Your task to perform on an android device: Play the last video I watched on Youtube Image 0: 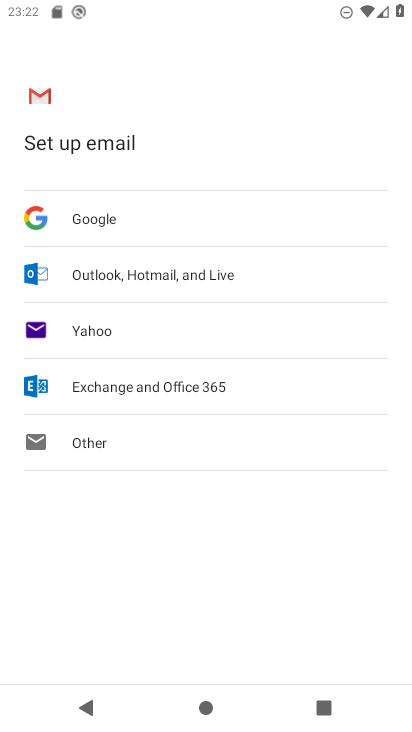
Step 0: press home button
Your task to perform on an android device: Play the last video I watched on Youtube Image 1: 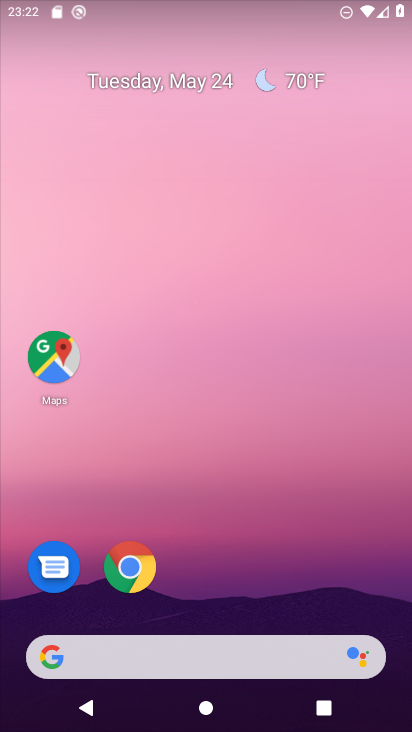
Step 1: drag from (318, 595) to (260, 27)
Your task to perform on an android device: Play the last video I watched on Youtube Image 2: 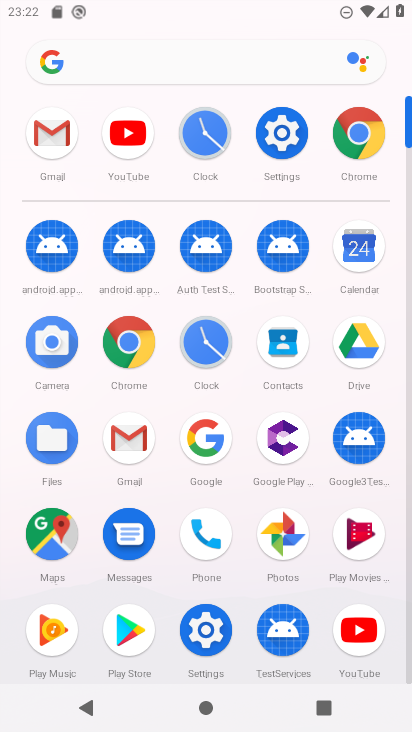
Step 2: click (373, 627)
Your task to perform on an android device: Play the last video I watched on Youtube Image 3: 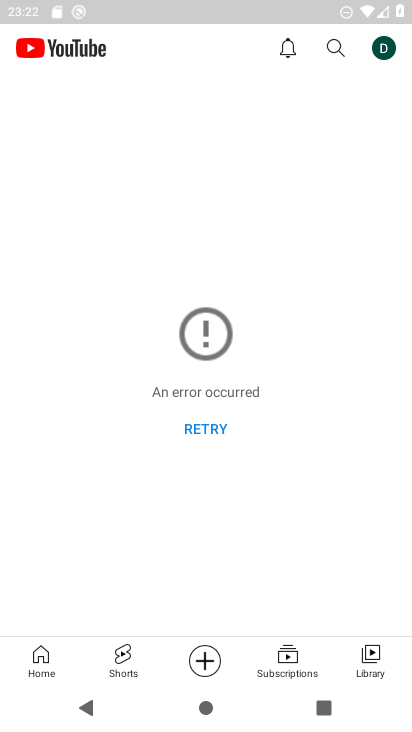
Step 3: click (373, 657)
Your task to perform on an android device: Play the last video I watched on Youtube Image 4: 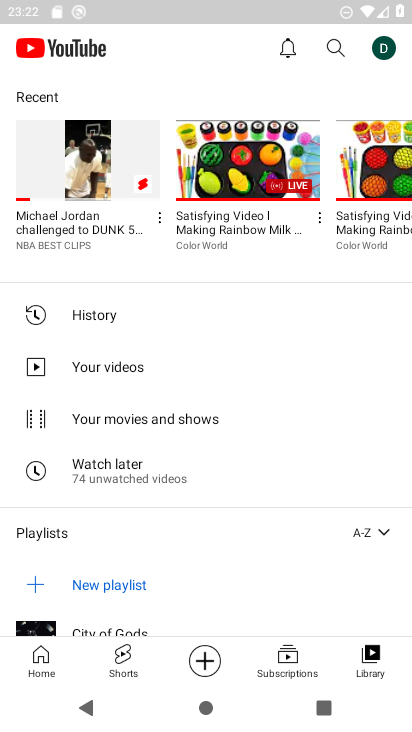
Step 4: click (80, 163)
Your task to perform on an android device: Play the last video I watched on Youtube Image 5: 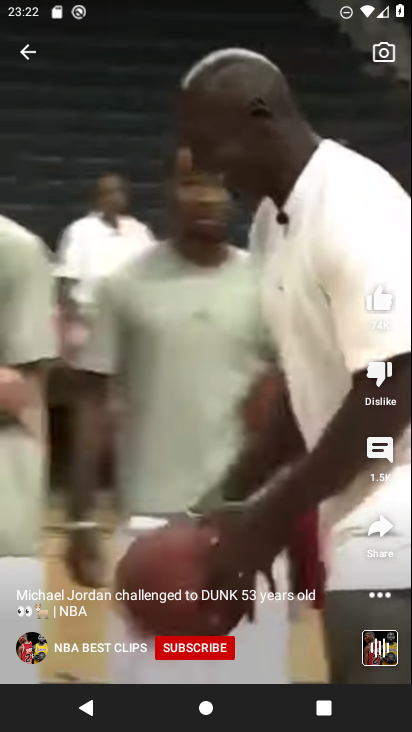
Step 5: click (202, 365)
Your task to perform on an android device: Play the last video I watched on Youtube Image 6: 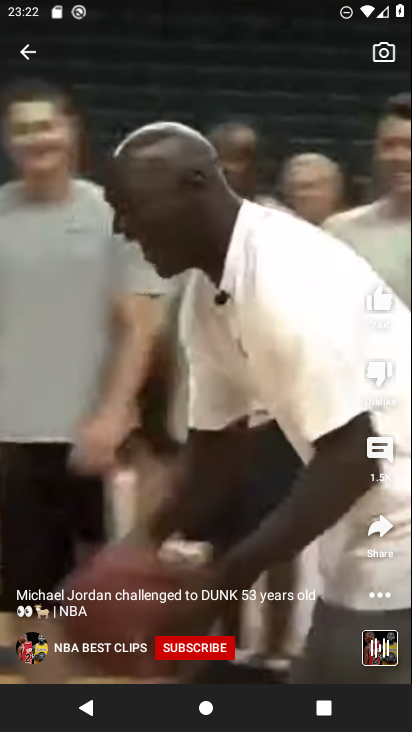
Step 6: task complete